Your task to perform on an android device: Open display settings Image 0: 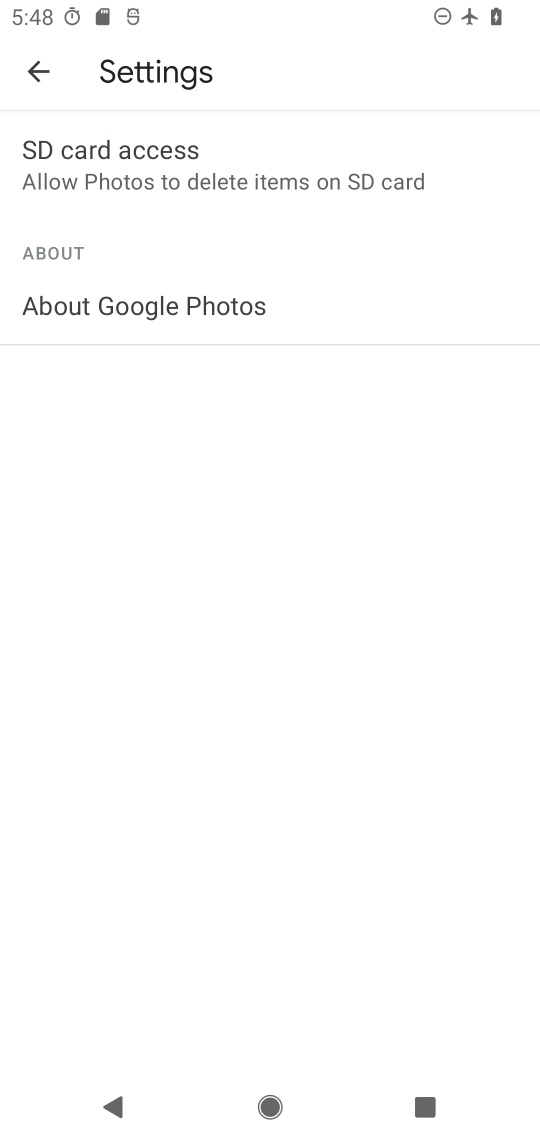
Step 0: press home button
Your task to perform on an android device: Open display settings Image 1: 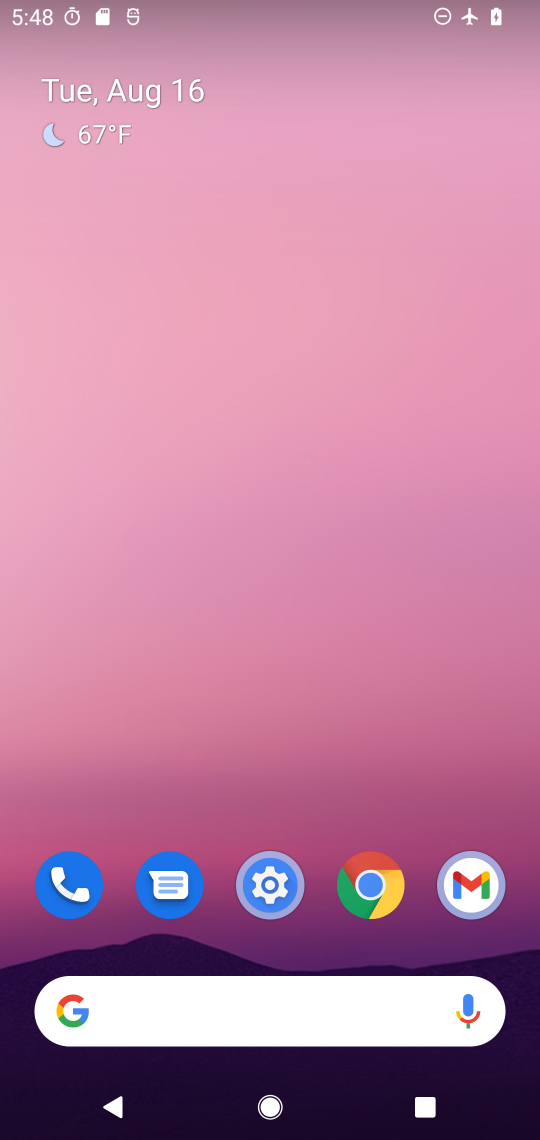
Step 1: drag from (245, 562) to (244, 342)
Your task to perform on an android device: Open display settings Image 2: 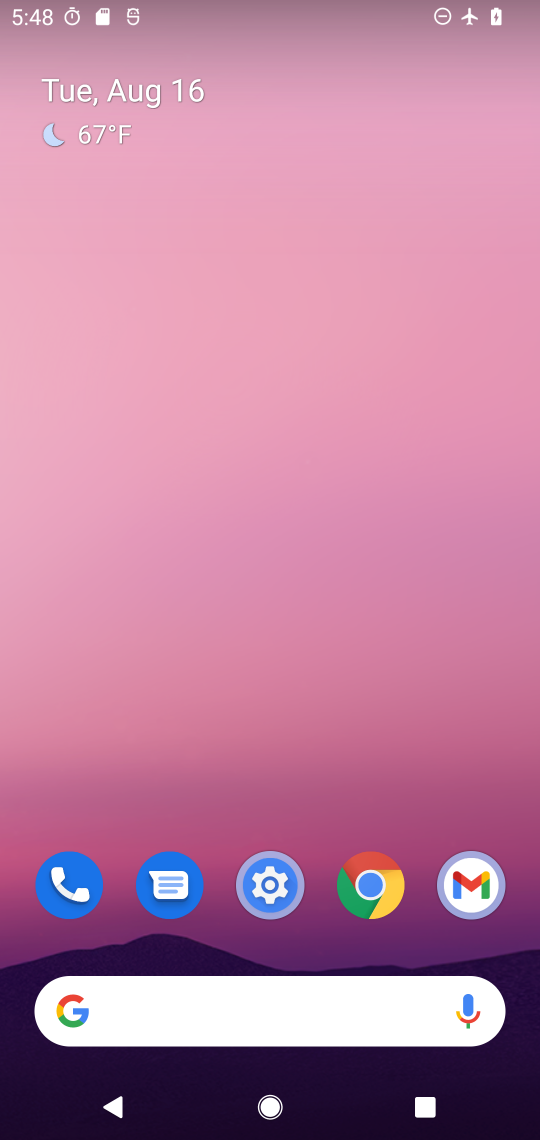
Step 2: drag from (257, 517) to (261, 278)
Your task to perform on an android device: Open display settings Image 3: 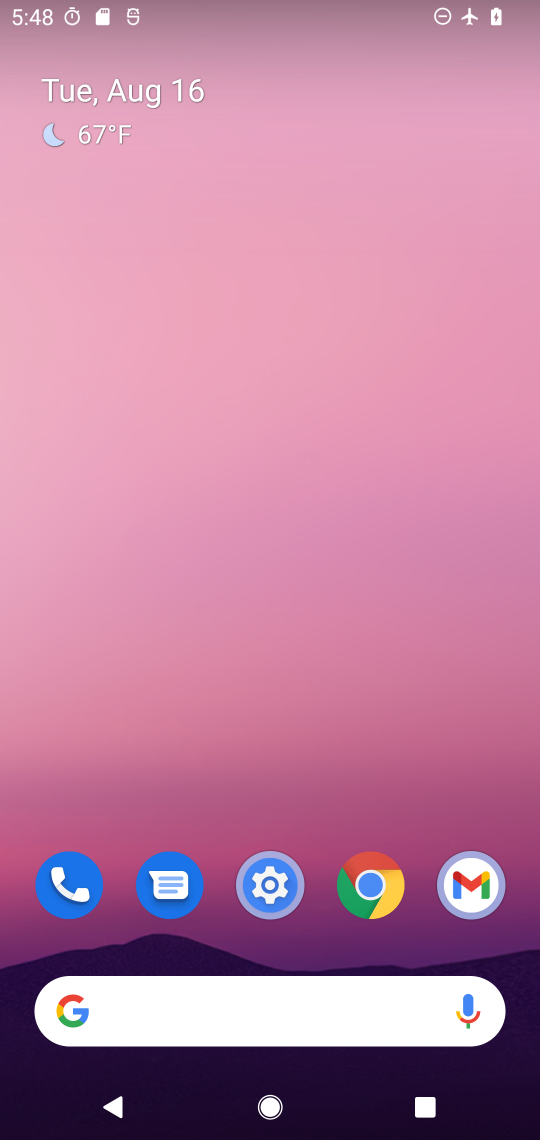
Step 3: drag from (331, 987) to (283, 471)
Your task to perform on an android device: Open display settings Image 4: 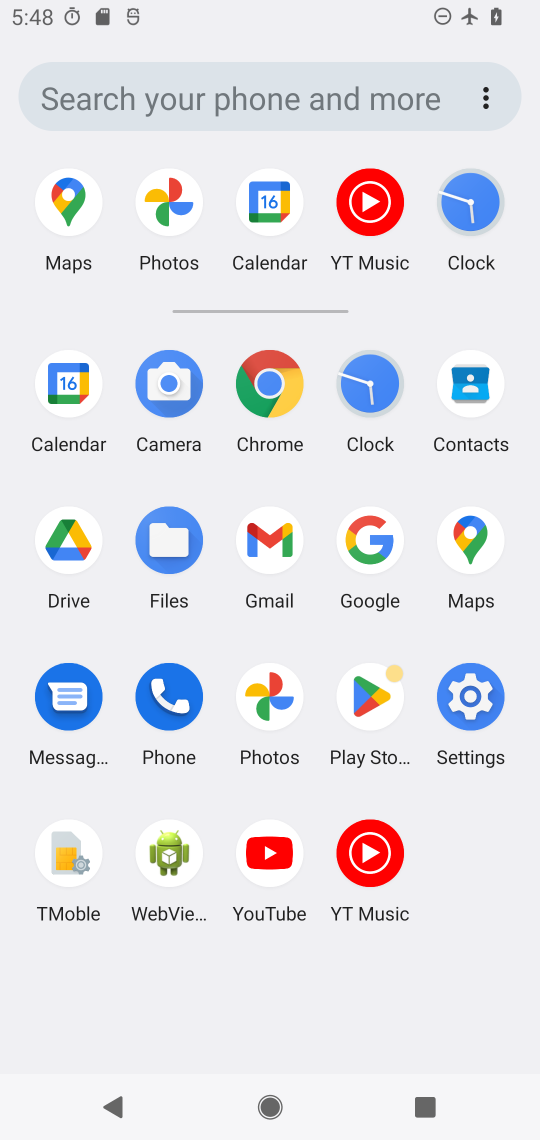
Step 4: click (459, 695)
Your task to perform on an android device: Open display settings Image 5: 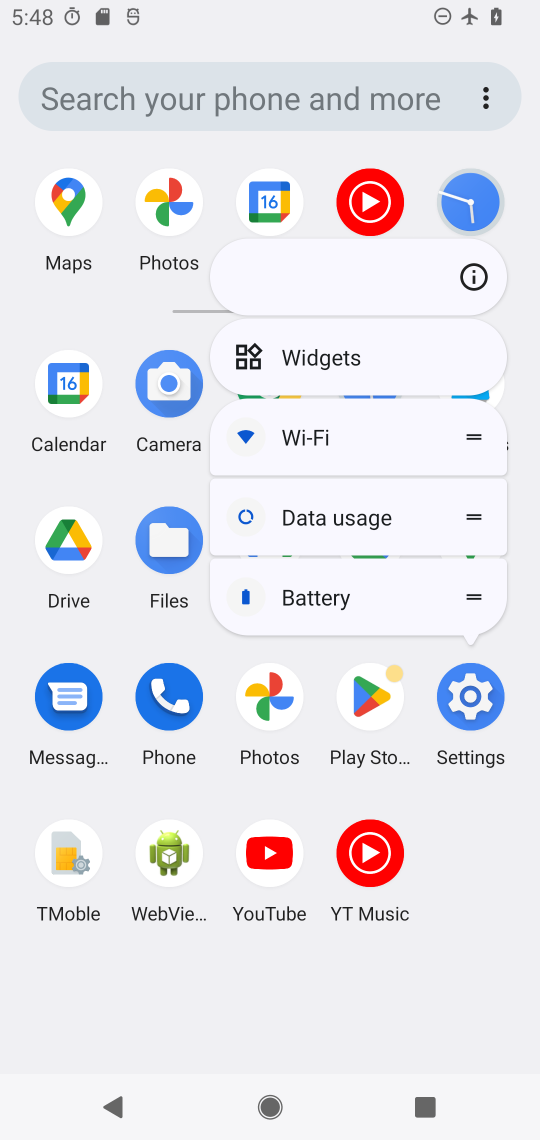
Step 5: click (459, 695)
Your task to perform on an android device: Open display settings Image 6: 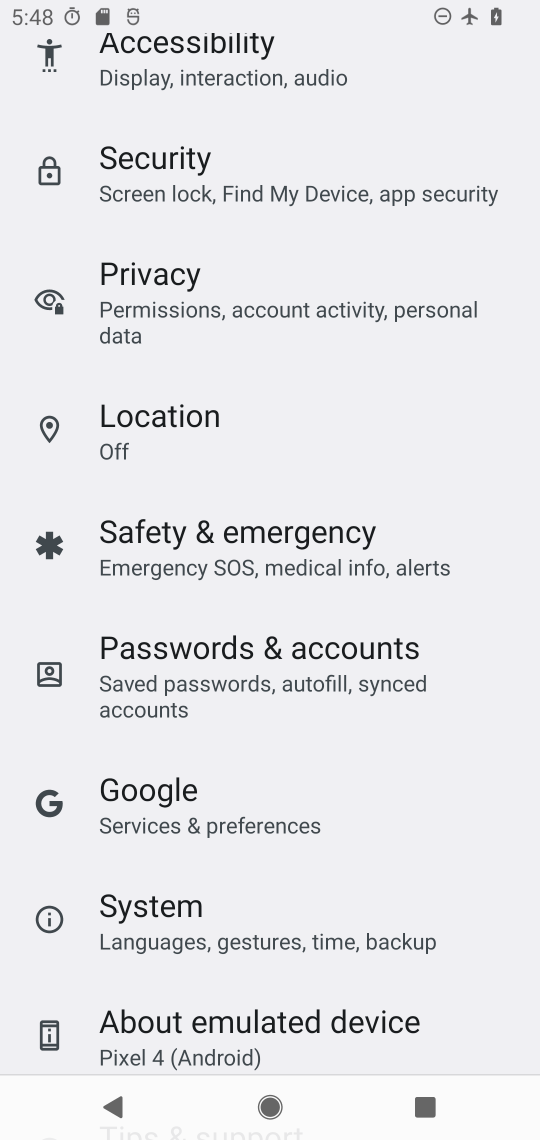
Step 6: drag from (210, 270) to (227, 911)
Your task to perform on an android device: Open display settings Image 7: 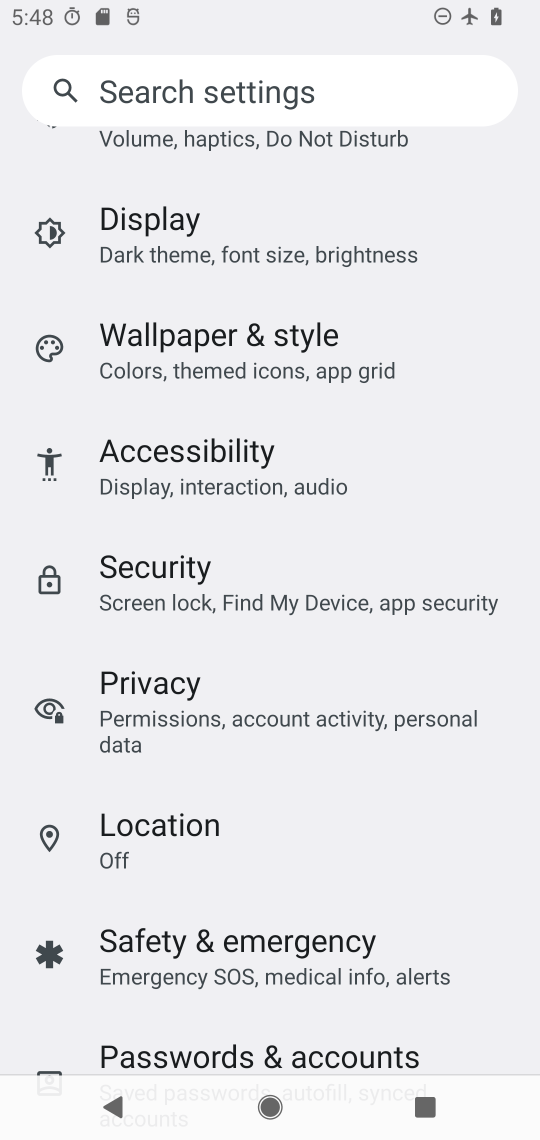
Step 7: click (161, 217)
Your task to perform on an android device: Open display settings Image 8: 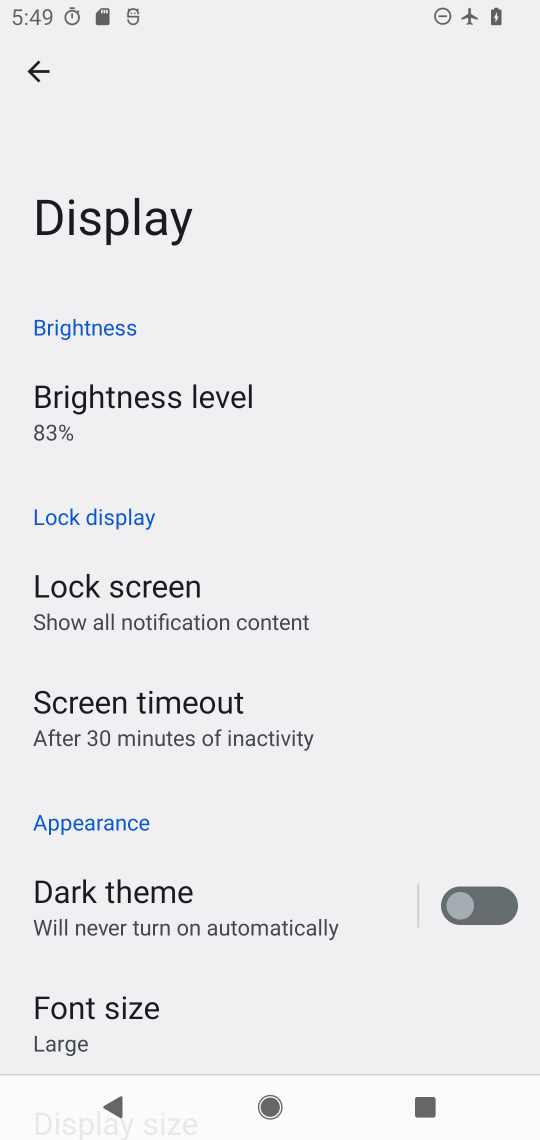
Step 8: task complete